Your task to perform on an android device: turn off improve location accuracy Image 0: 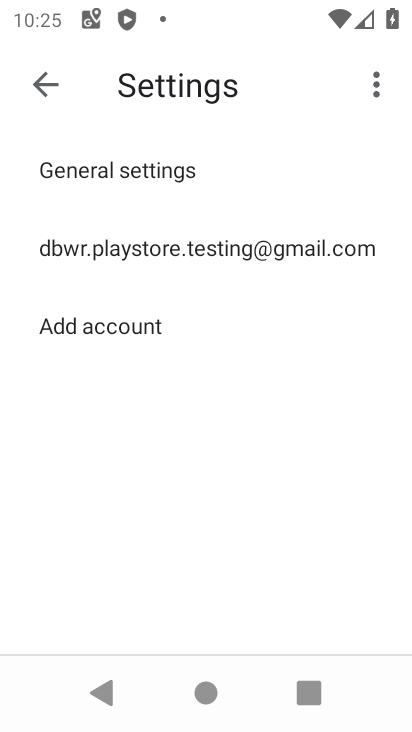
Step 0: press home button
Your task to perform on an android device: turn off improve location accuracy Image 1: 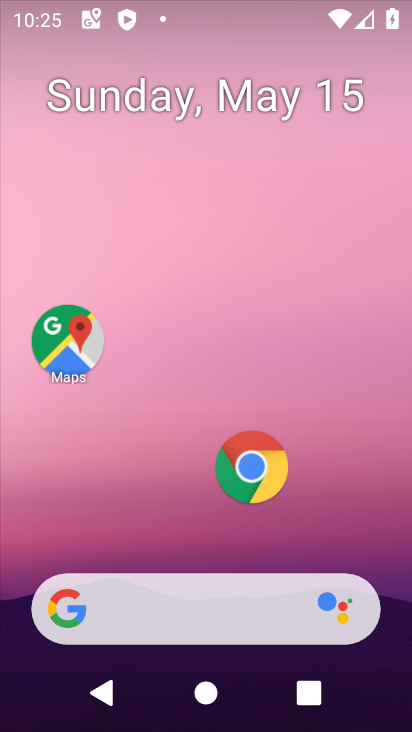
Step 1: drag from (179, 589) to (207, 161)
Your task to perform on an android device: turn off improve location accuracy Image 2: 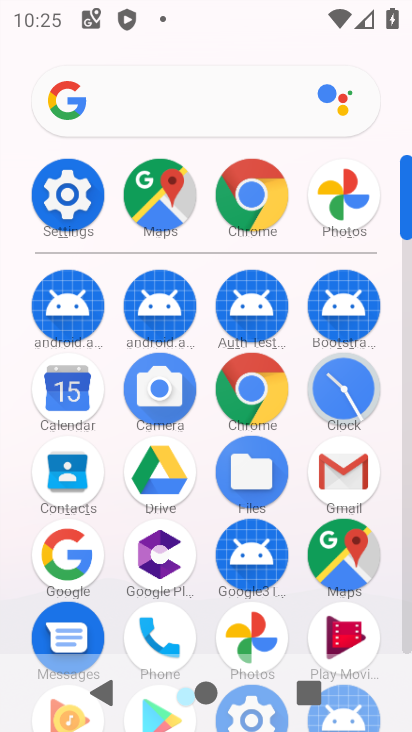
Step 2: drag from (200, 617) to (190, 273)
Your task to perform on an android device: turn off improve location accuracy Image 3: 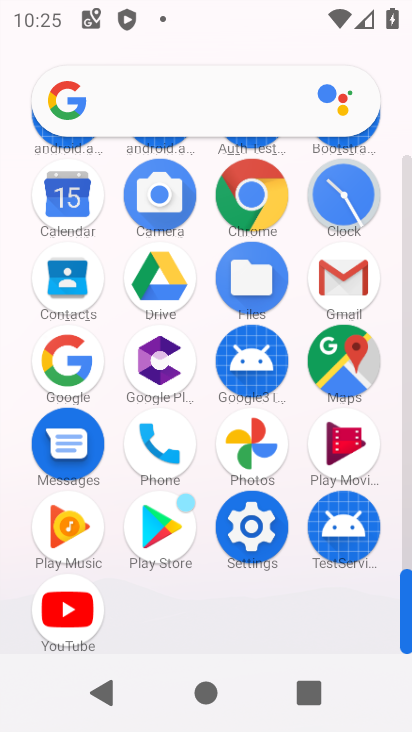
Step 3: click (241, 534)
Your task to perform on an android device: turn off improve location accuracy Image 4: 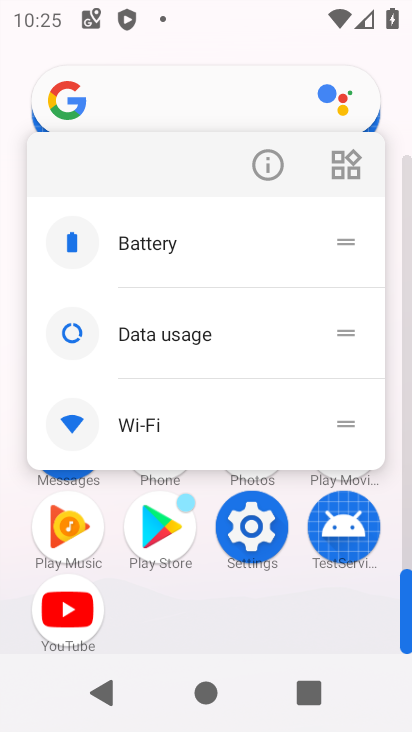
Step 4: click (251, 174)
Your task to perform on an android device: turn off improve location accuracy Image 5: 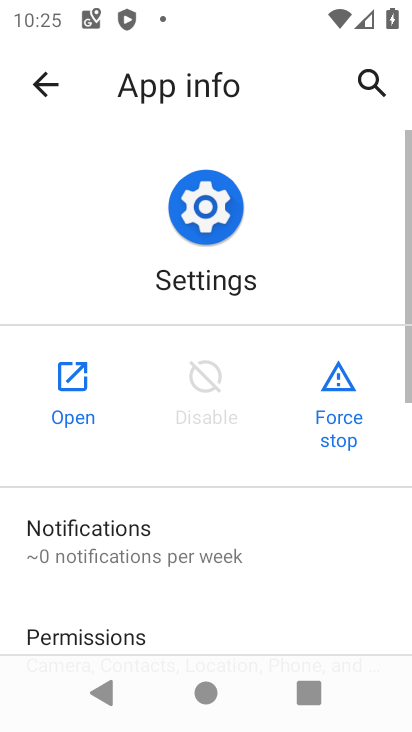
Step 5: click (75, 405)
Your task to perform on an android device: turn off improve location accuracy Image 6: 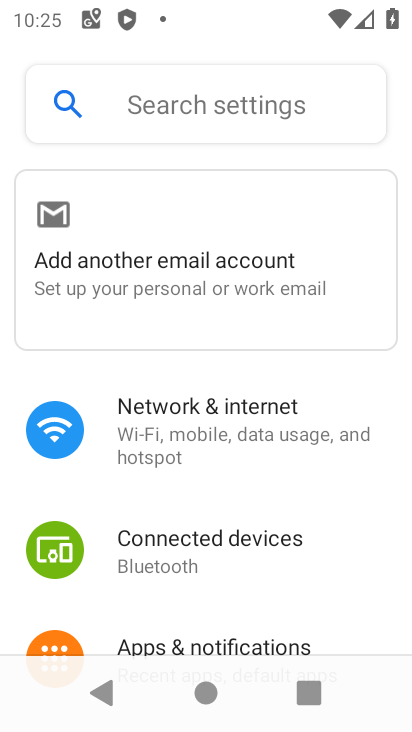
Step 6: drag from (230, 491) to (283, 161)
Your task to perform on an android device: turn off improve location accuracy Image 7: 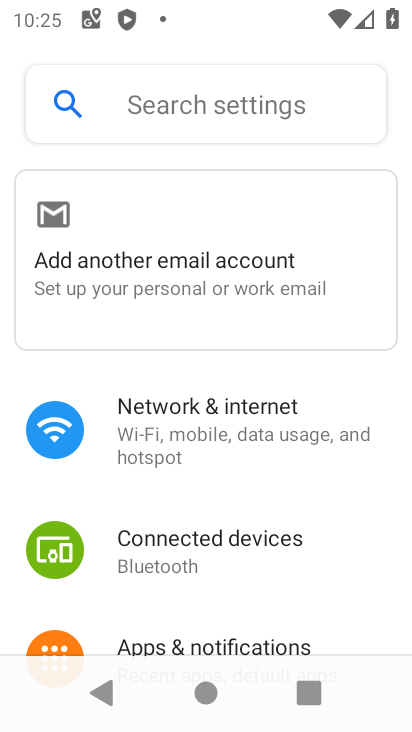
Step 7: drag from (202, 582) to (326, 8)
Your task to perform on an android device: turn off improve location accuracy Image 8: 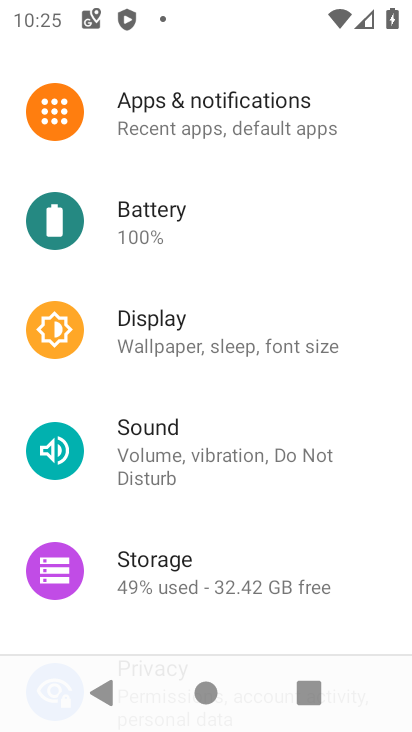
Step 8: drag from (202, 586) to (305, 141)
Your task to perform on an android device: turn off improve location accuracy Image 9: 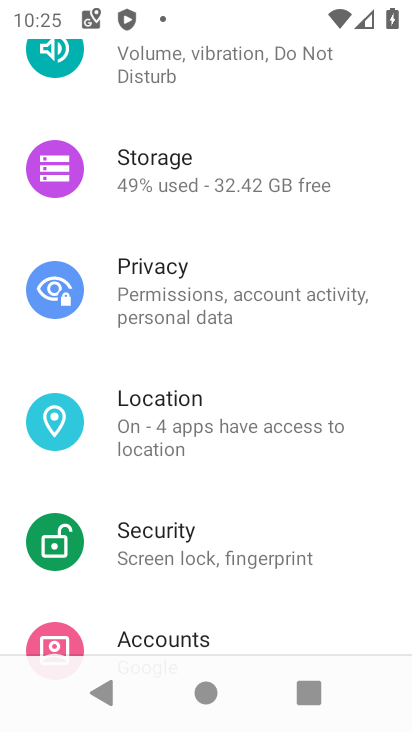
Step 9: drag from (182, 608) to (226, 233)
Your task to perform on an android device: turn off improve location accuracy Image 10: 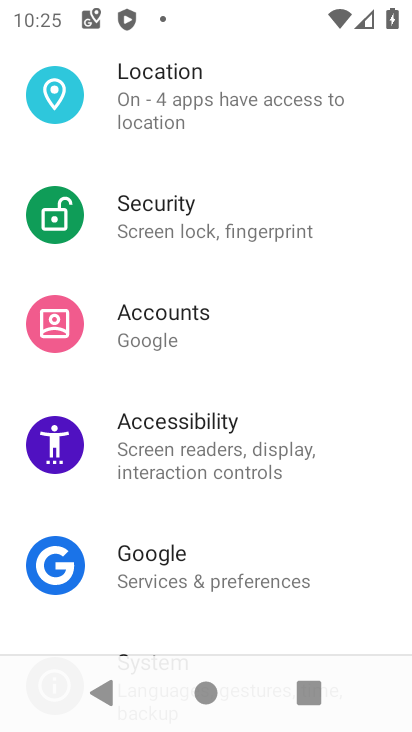
Step 10: drag from (191, 533) to (266, 164)
Your task to perform on an android device: turn off improve location accuracy Image 11: 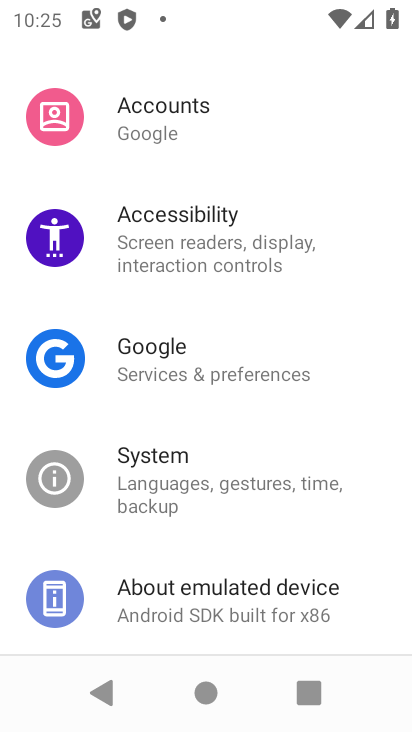
Step 11: drag from (211, 129) to (236, 564)
Your task to perform on an android device: turn off improve location accuracy Image 12: 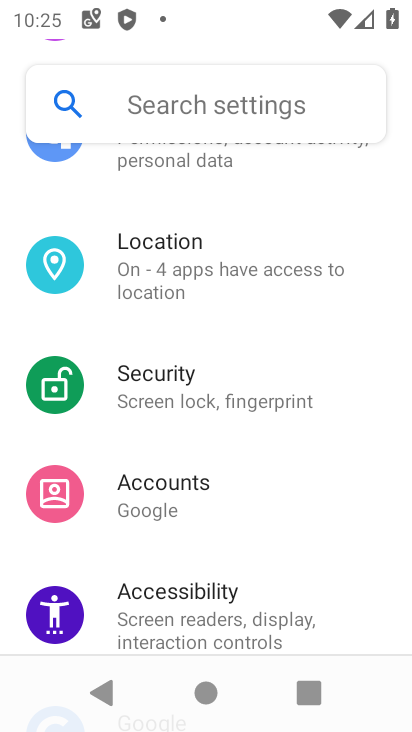
Step 12: click (131, 263)
Your task to perform on an android device: turn off improve location accuracy Image 13: 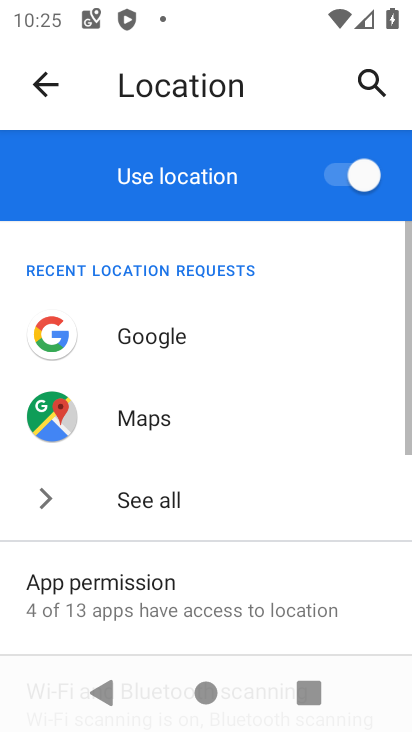
Step 13: drag from (201, 602) to (300, 181)
Your task to perform on an android device: turn off improve location accuracy Image 14: 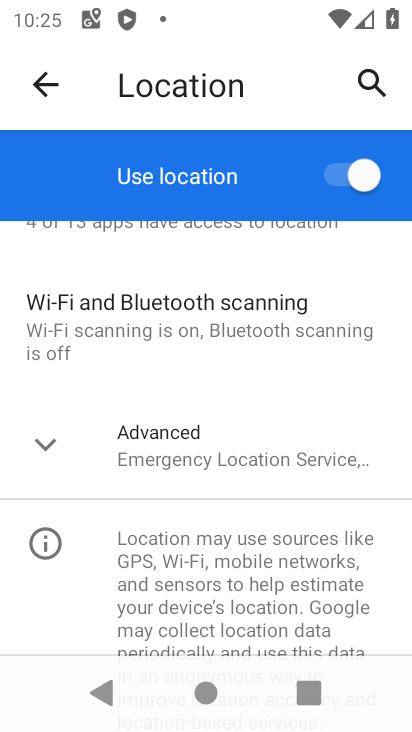
Step 14: click (133, 488)
Your task to perform on an android device: turn off improve location accuracy Image 15: 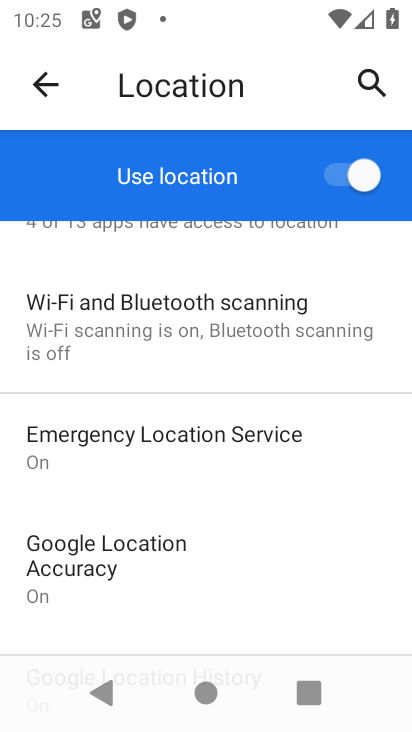
Step 15: drag from (266, 603) to (340, 372)
Your task to perform on an android device: turn off improve location accuracy Image 16: 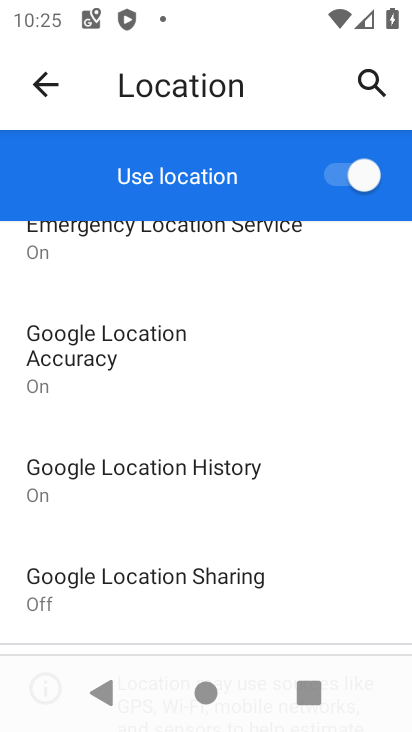
Step 16: click (143, 389)
Your task to perform on an android device: turn off improve location accuracy Image 17: 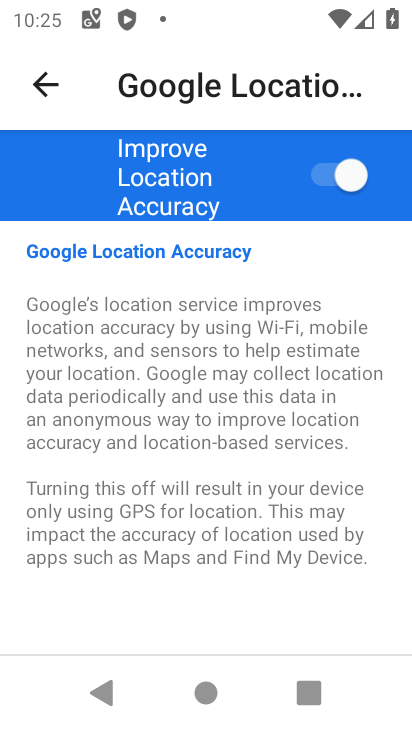
Step 17: drag from (187, 560) to (299, 166)
Your task to perform on an android device: turn off improve location accuracy Image 18: 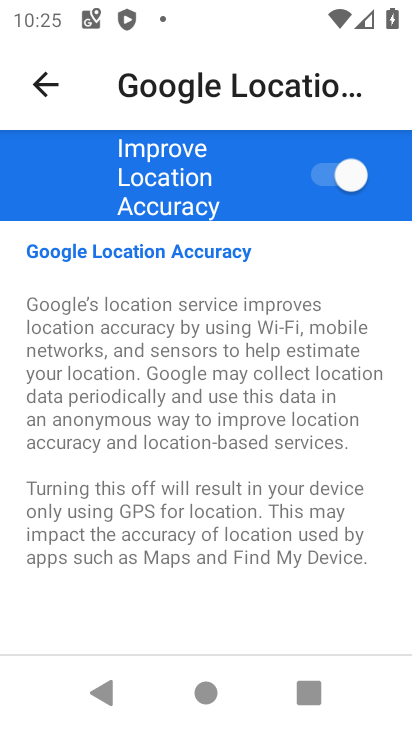
Step 18: click (329, 169)
Your task to perform on an android device: turn off improve location accuracy Image 19: 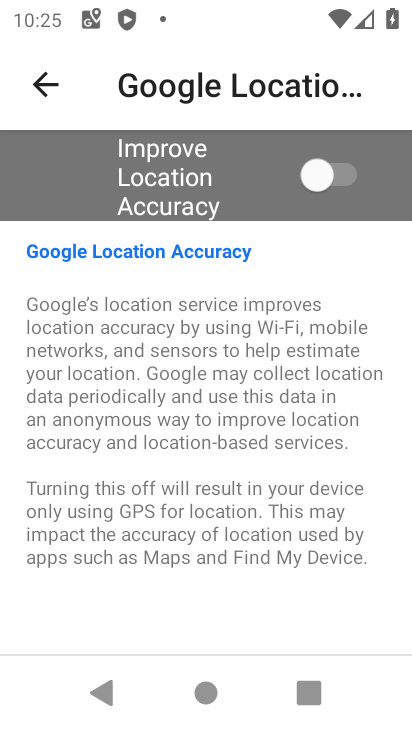
Step 19: task complete